Your task to perform on an android device: check android version Image 0: 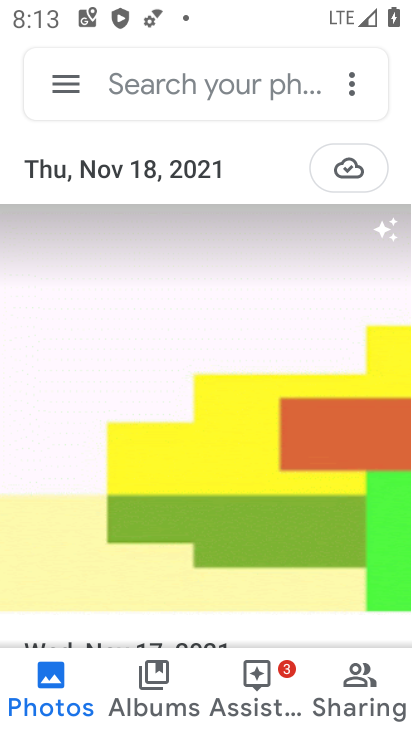
Step 0: press home button
Your task to perform on an android device: check android version Image 1: 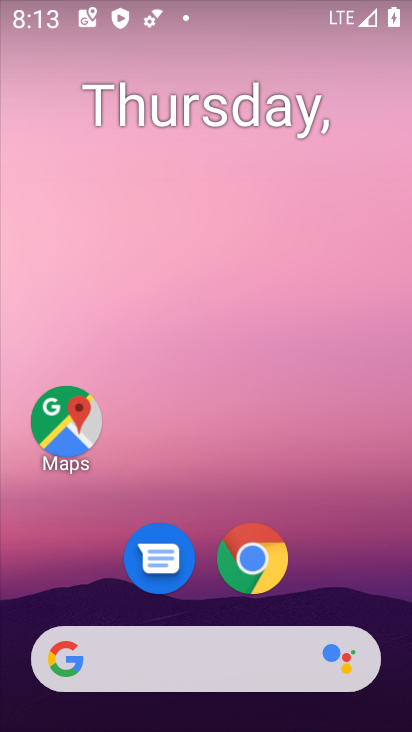
Step 1: drag from (213, 623) to (235, 52)
Your task to perform on an android device: check android version Image 2: 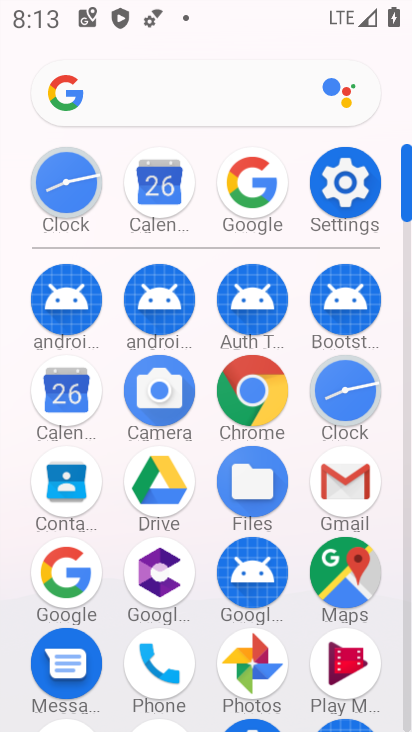
Step 2: click (345, 183)
Your task to perform on an android device: check android version Image 3: 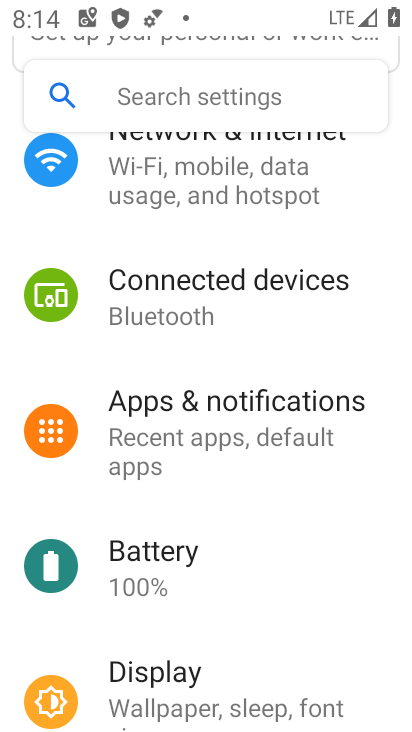
Step 3: drag from (191, 638) to (293, 71)
Your task to perform on an android device: check android version Image 4: 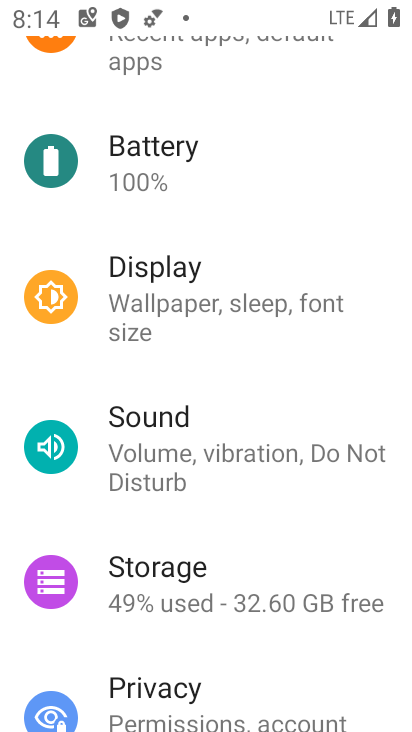
Step 4: drag from (139, 694) to (205, 270)
Your task to perform on an android device: check android version Image 5: 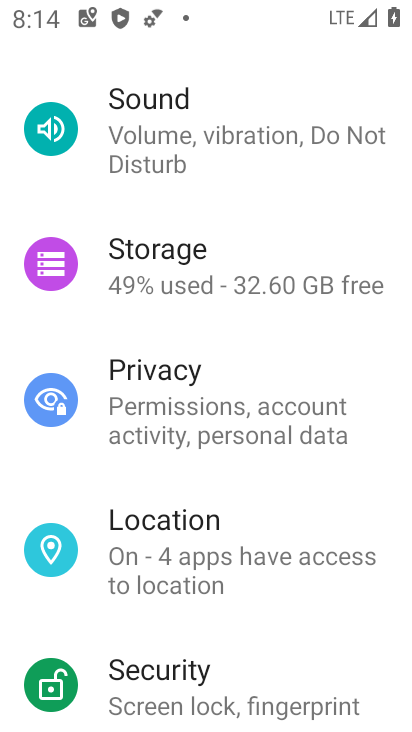
Step 5: drag from (160, 697) to (240, 366)
Your task to perform on an android device: check android version Image 6: 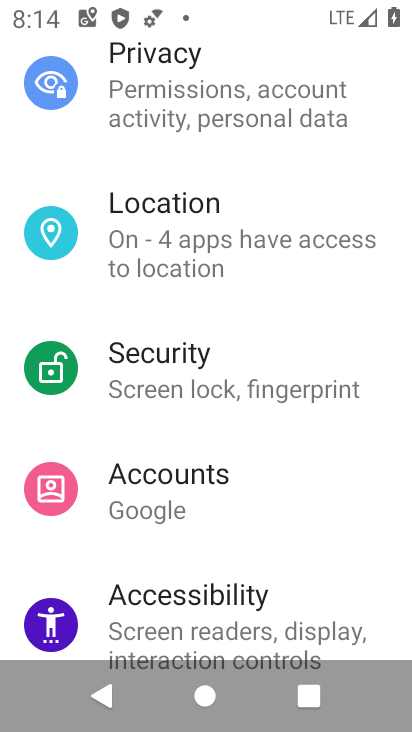
Step 6: drag from (183, 619) to (239, 168)
Your task to perform on an android device: check android version Image 7: 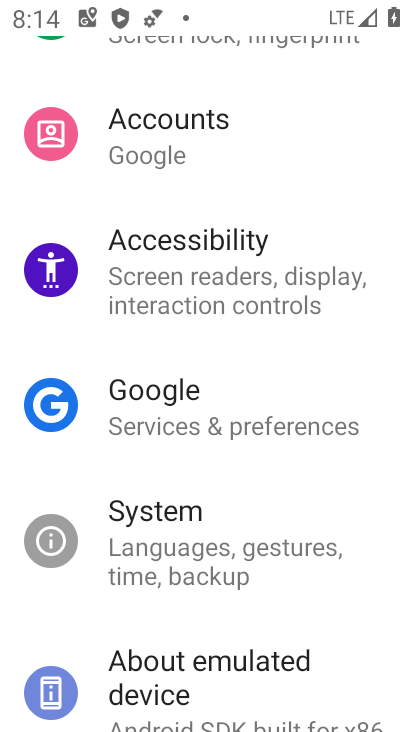
Step 7: click (156, 706)
Your task to perform on an android device: check android version Image 8: 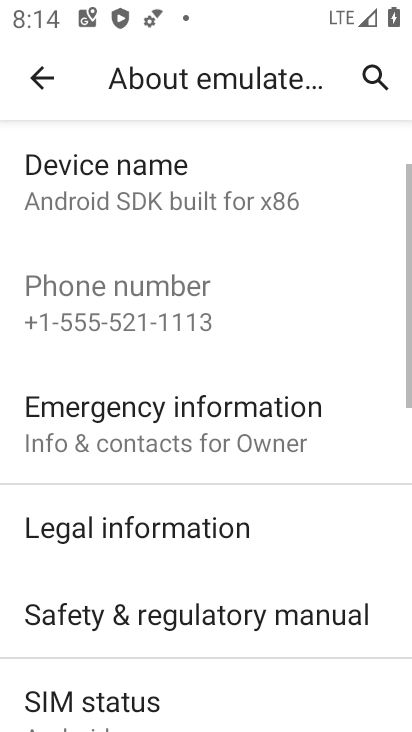
Step 8: drag from (170, 633) to (192, 216)
Your task to perform on an android device: check android version Image 9: 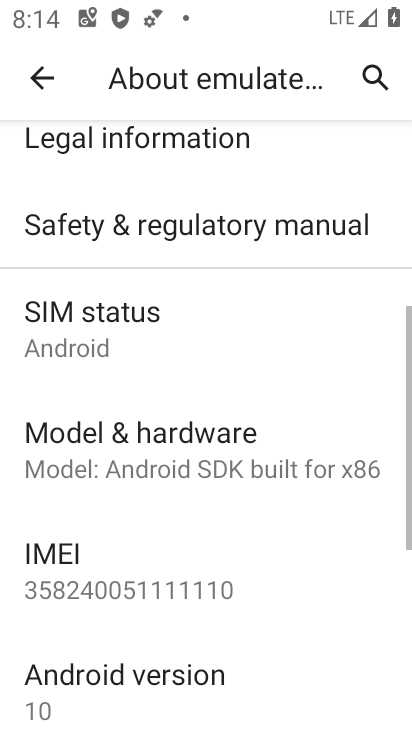
Step 9: click (120, 697)
Your task to perform on an android device: check android version Image 10: 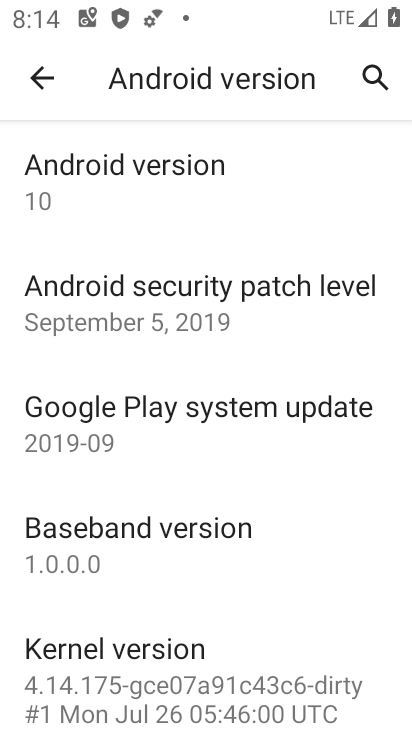
Step 10: task complete